Your task to perform on an android device: Show the shopping cart on ebay.com. Image 0: 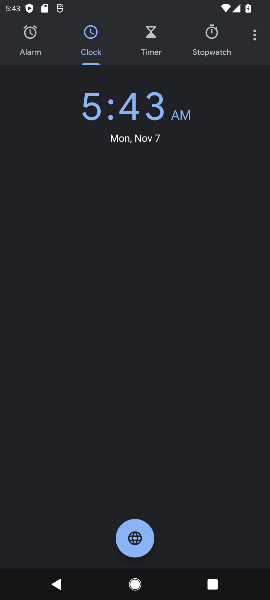
Step 0: press home button
Your task to perform on an android device: Show the shopping cart on ebay.com. Image 1: 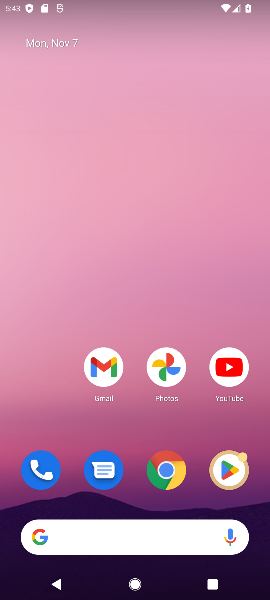
Step 1: click (163, 468)
Your task to perform on an android device: Show the shopping cart on ebay.com. Image 2: 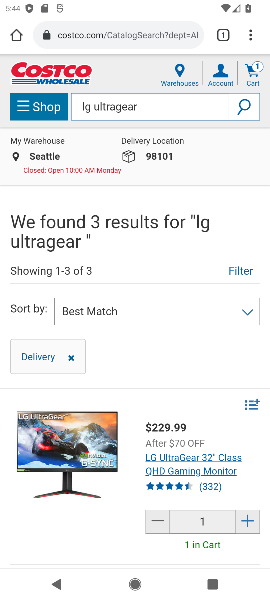
Step 2: click (134, 40)
Your task to perform on an android device: Show the shopping cart on ebay.com. Image 3: 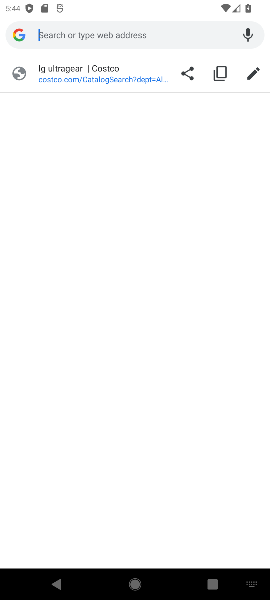
Step 3: click (115, 35)
Your task to perform on an android device: Show the shopping cart on ebay.com. Image 4: 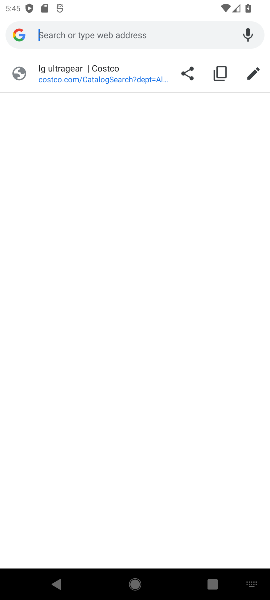
Step 4: type "ebay"
Your task to perform on an android device: Show the shopping cart on ebay.com. Image 5: 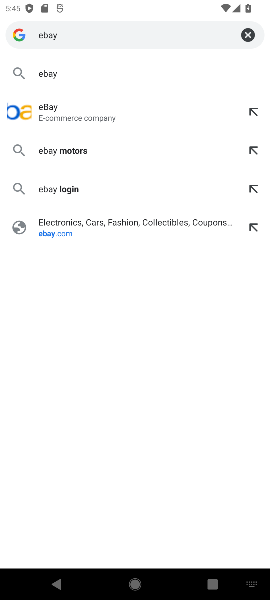
Step 5: click (38, 109)
Your task to perform on an android device: Show the shopping cart on ebay.com. Image 6: 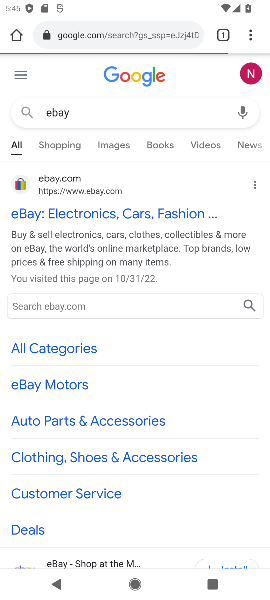
Step 6: click (52, 114)
Your task to perform on an android device: Show the shopping cart on ebay.com. Image 7: 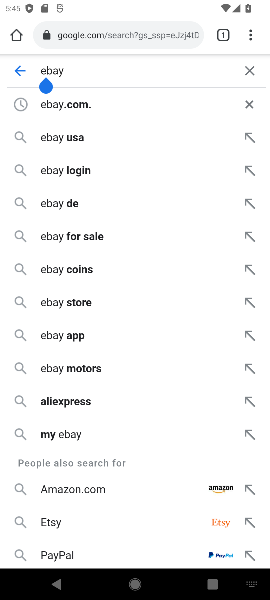
Step 7: drag from (70, 109) to (104, 109)
Your task to perform on an android device: Show the shopping cart on ebay.com. Image 8: 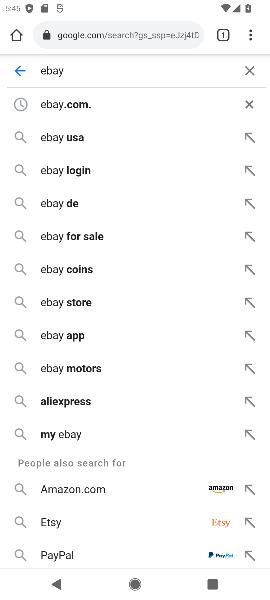
Step 8: click (82, 102)
Your task to perform on an android device: Show the shopping cart on ebay.com. Image 9: 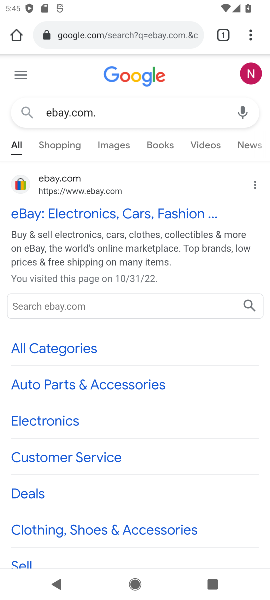
Step 9: click (93, 213)
Your task to perform on an android device: Show the shopping cart on ebay.com. Image 10: 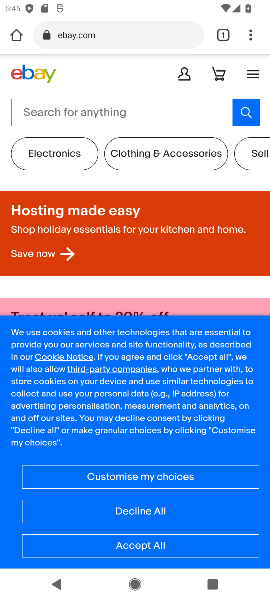
Step 10: click (218, 67)
Your task to perform on an android device: Show the shopping cart on ebay.com. Image 11: 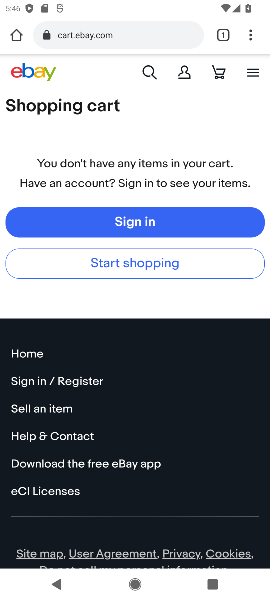
Step 11: click (218, 75)
Your task to perform on an android device: Show the shopping cart on ebay.com. Image 12: 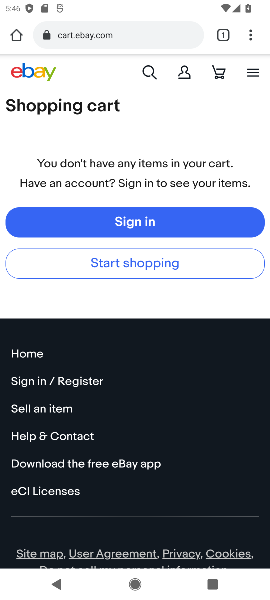
Step 12: task complete